Your task to perform on an android device: allow cookies in the chrome app Image 0: 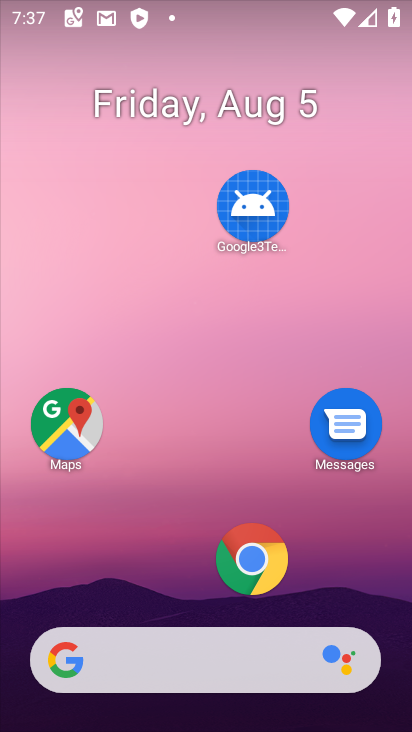
Step 0: drag from (196, 619) to (175, 221)
Your task to perform on an android device: allow cookies in the chrome app Image 1: 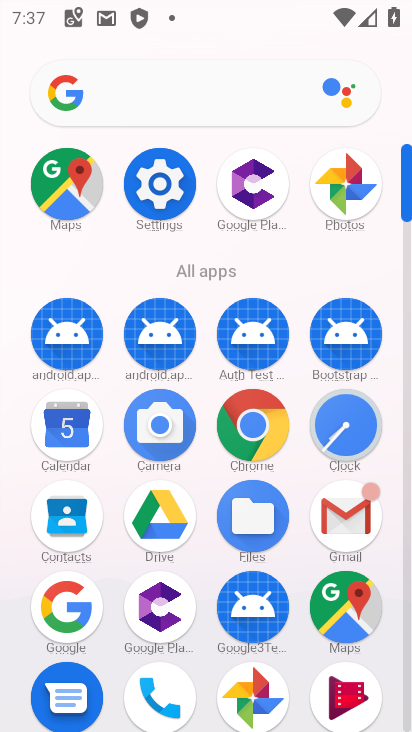
Step 1: click (259, 428)
Your task to perform on an android device: allow cookies in the chrome app Image 2: 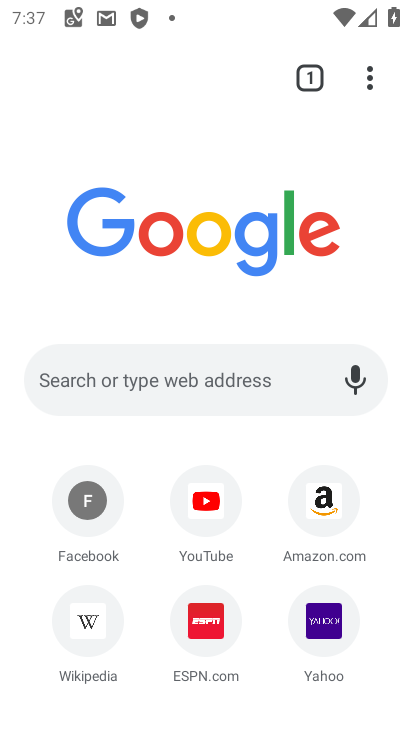
Step 2: click (373, 81)
Your task to perform on an android device: allow cookies in the chrome app Image 3: 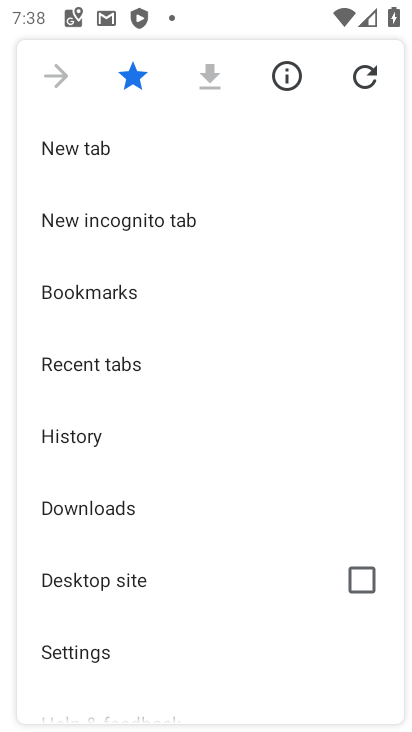
Step 3: click (80, 637)
Your task to perform on an android device: allow cookies in the chrome app Image 4: 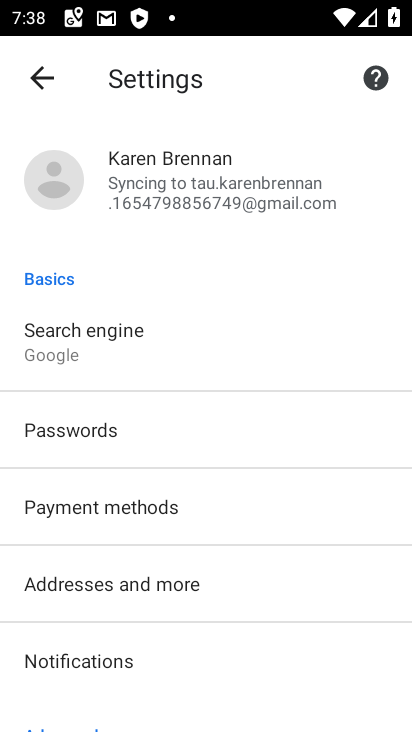
Step 4: drag from (80, 637) to (99, 124)
Your task to perform on an android device: allow cookies in the chrome app Image 5: 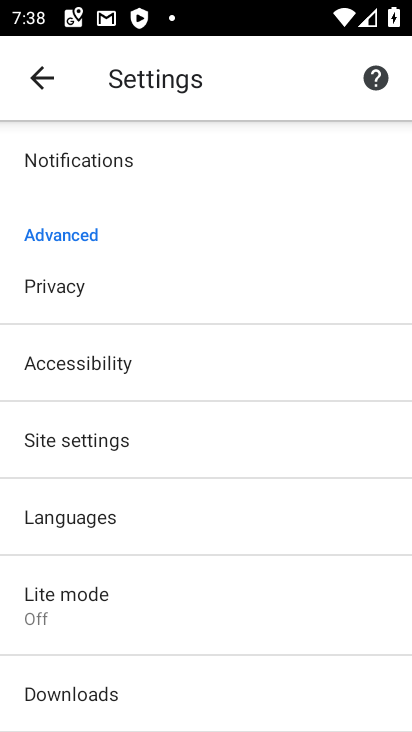
Step 5: click (64, 433)
Your task to perform on an android device: allow cookies in the chrome app Image 6: 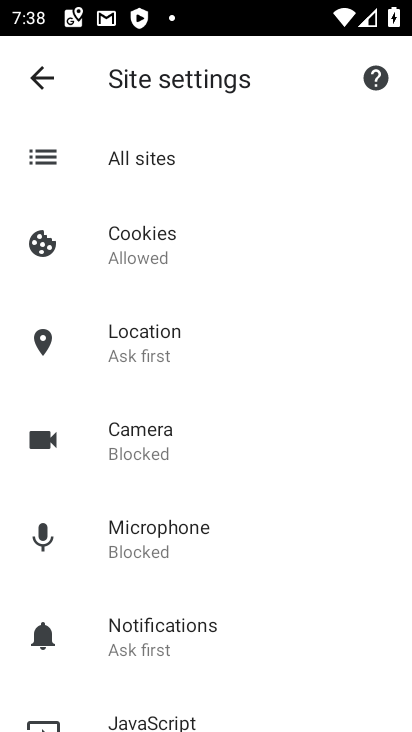
Step 6: click (64, 433)
Your task to perform on an android device: allow cookies in the chrome app Image 7: 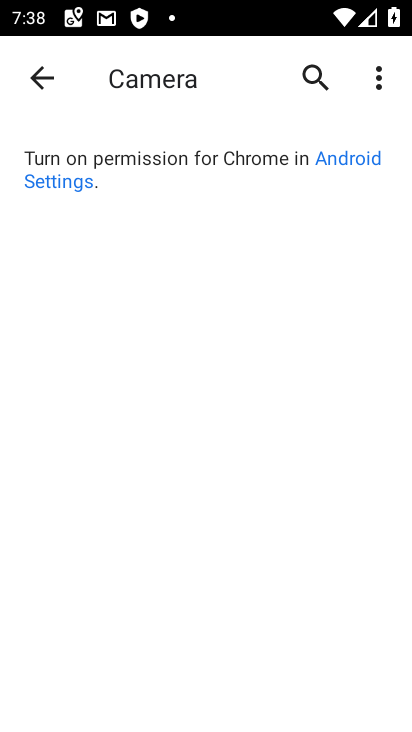
Step 7: click (29, 81)
Your task to perform on an android device: allow cookies in the chrome app Image 8: 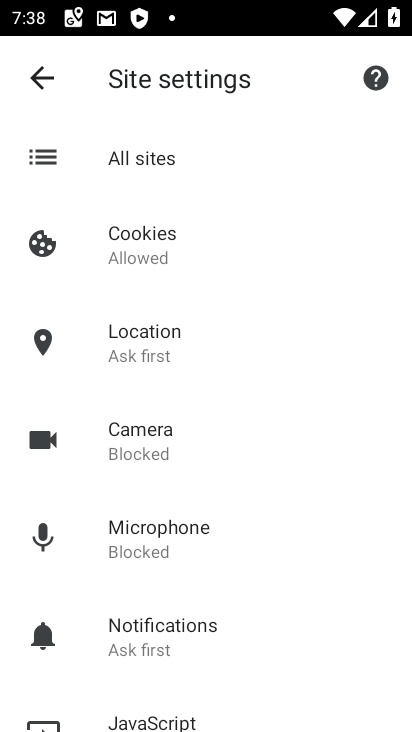
Step 8: click (133, 226)
Your task to perform on an android device: allow cookies in the chrome app Image 9: 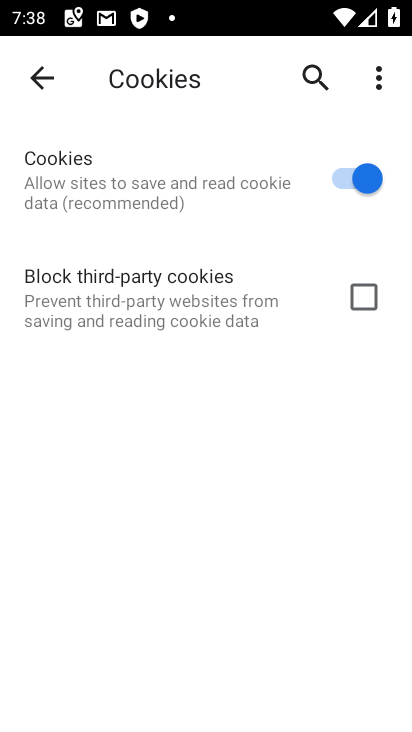
Step 9: task complete